Your task to perform on an android device: Open wifi settings Image 0: 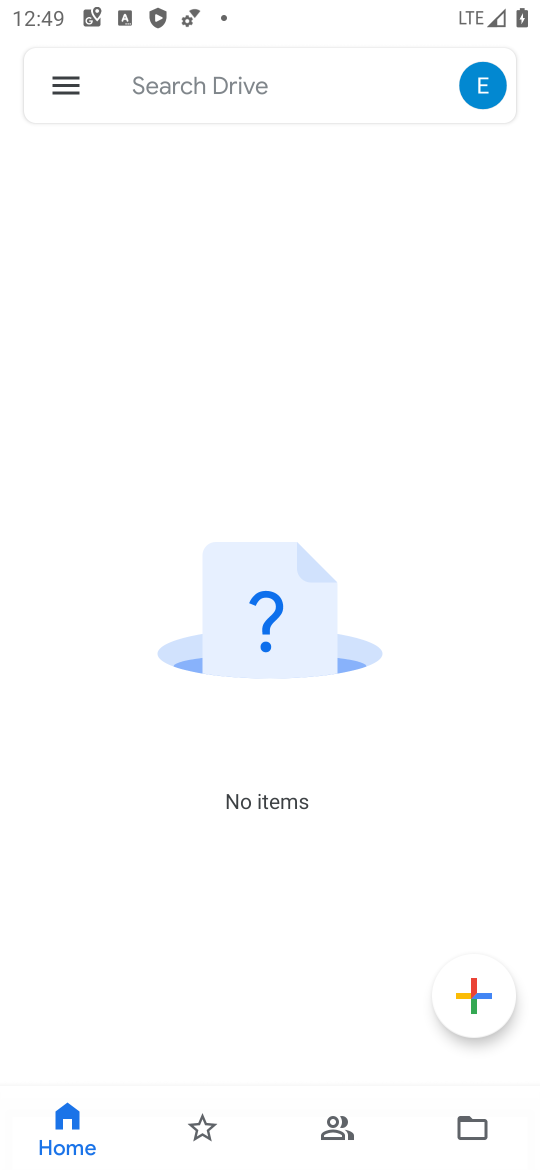
Step 0: press home button
Your task to perform on an android device: Open wifi settings Image 1: 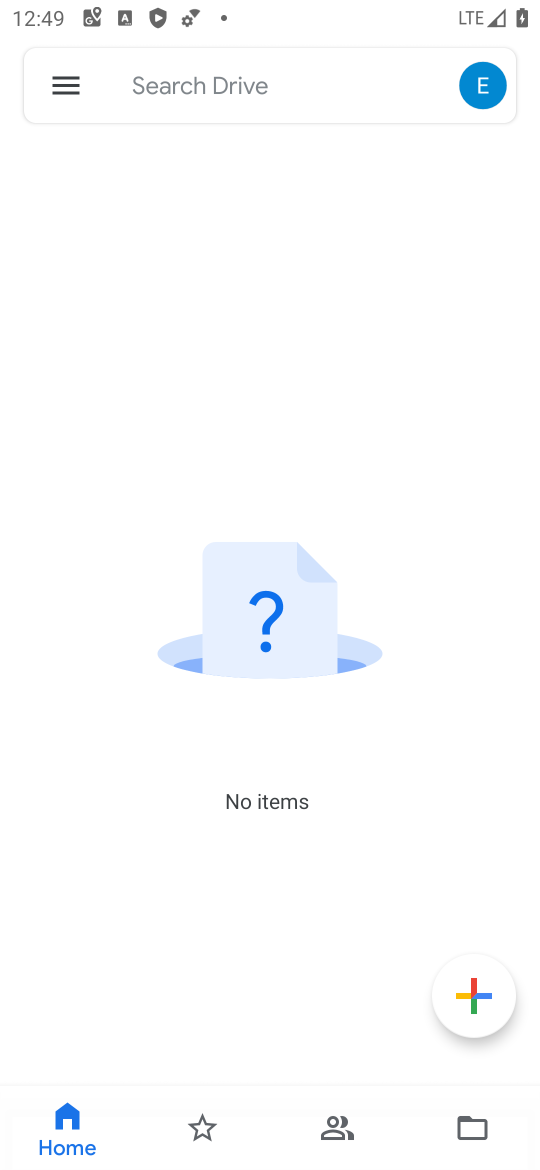
Step 1: press home button
Your task to perform on an android device: Open wifi settings Image 2: 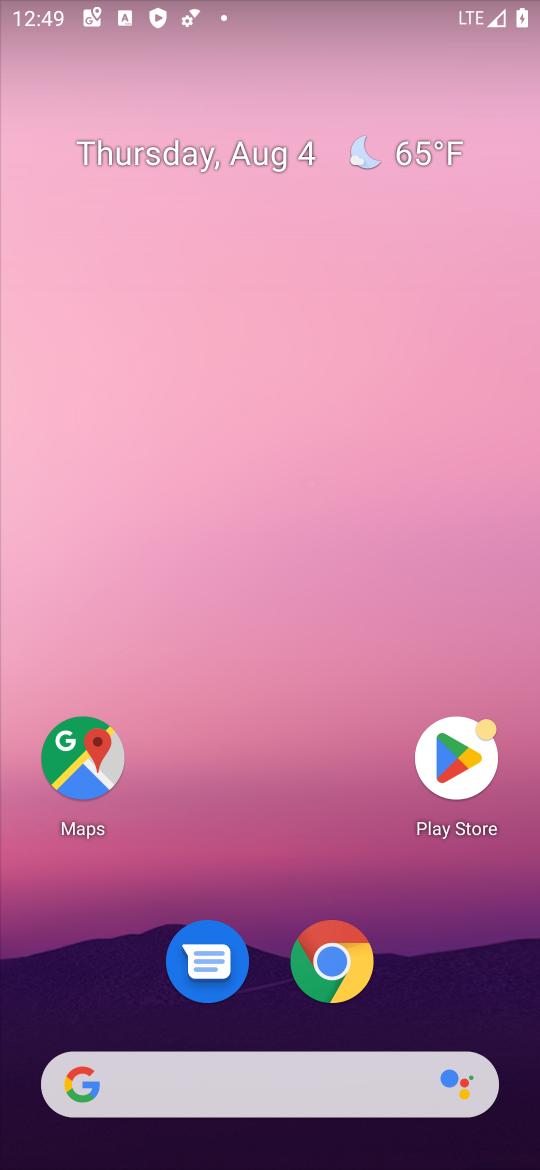
Step 2: drag from (299, 819) to (348, 537)
Your task to perform on an android device: Open wifi settings Image 3: 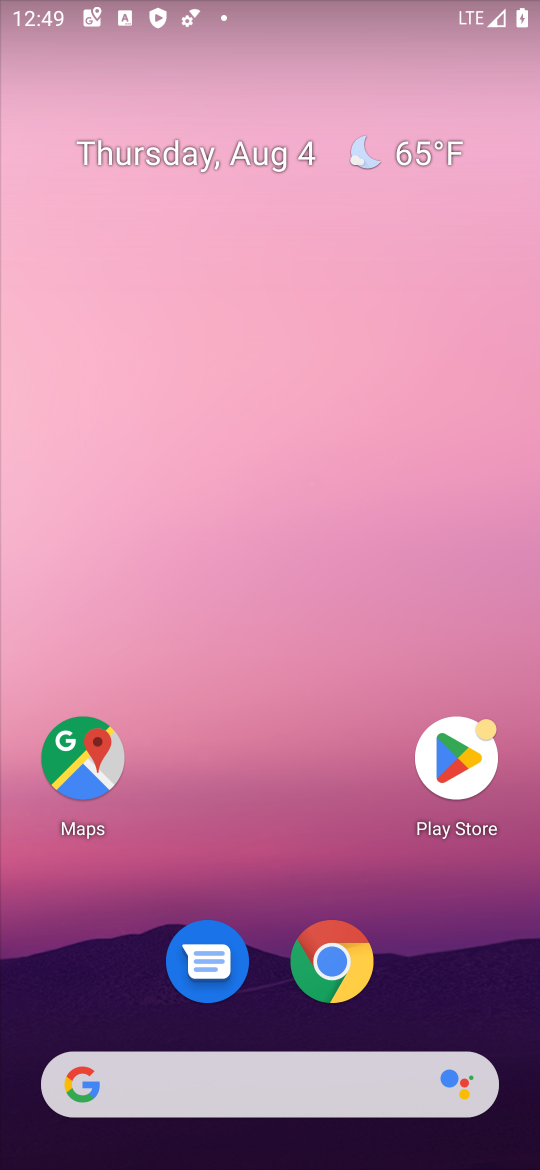
Step 3: drag from (285, 832) to (367, 82)
Your task to perform on an android device: Open wifi settings Image 4: 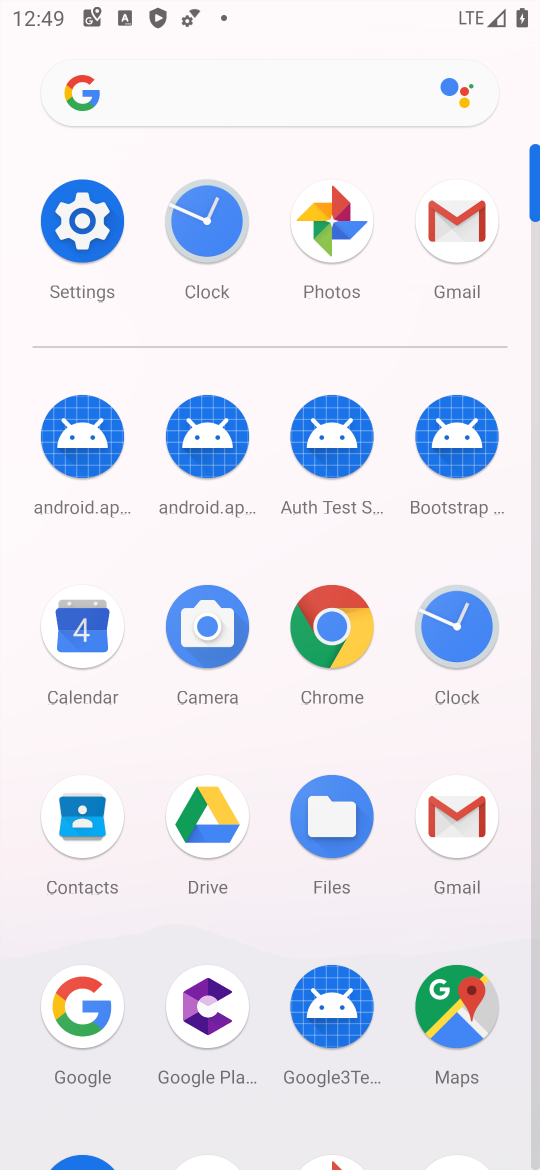
Step 4: click (79, 223)
Your task to perform on an android device: Open wifi settings Image 5: 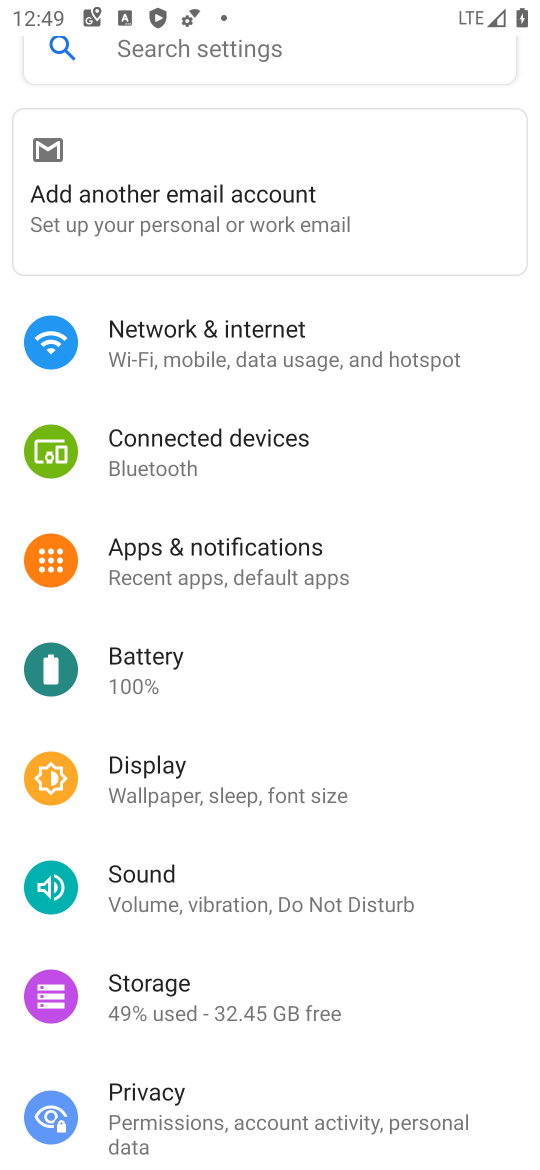
Step 5: click (178, 336)
Your task to perform on an android device: Open wifi settings Image 6: 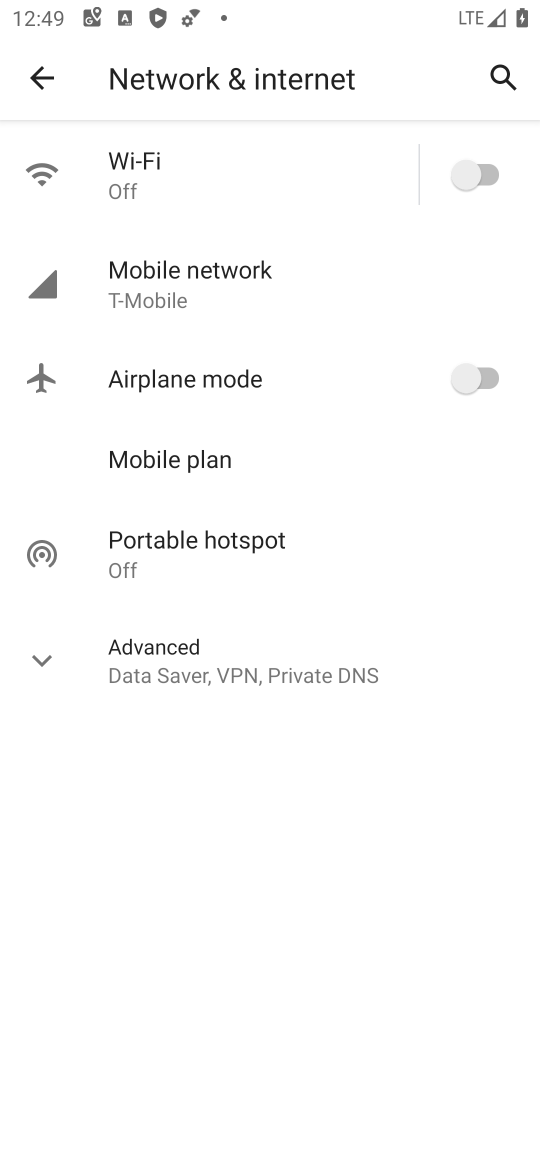
Step 6: click (145, 156)
Your task to perform on an android device: Open wifi settings Image 7: 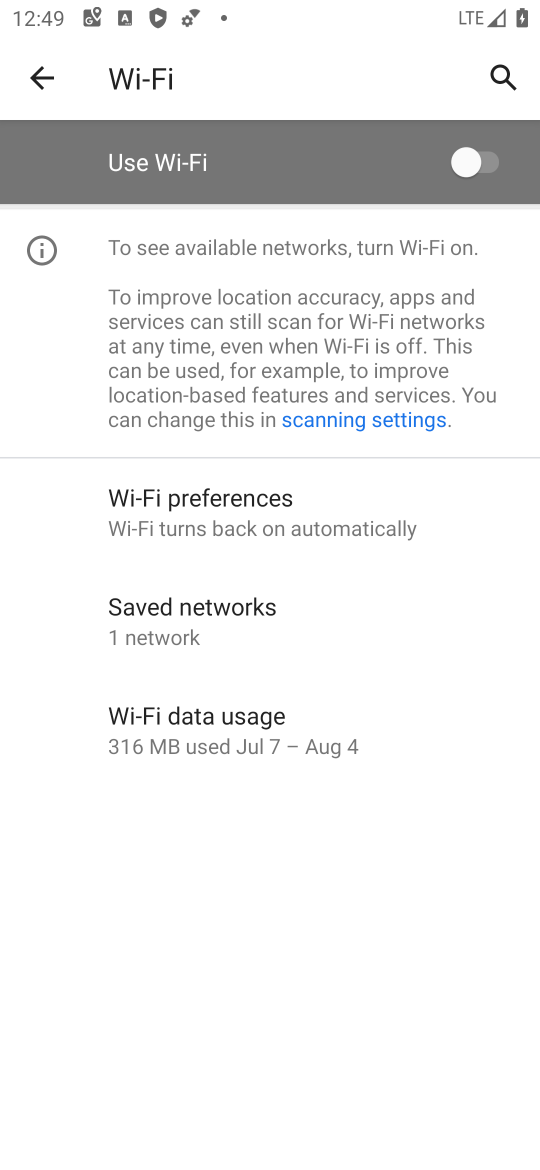
Step 7: task complete